Your task to perform on an android device: toggle data saver in the chrome app Image 0: 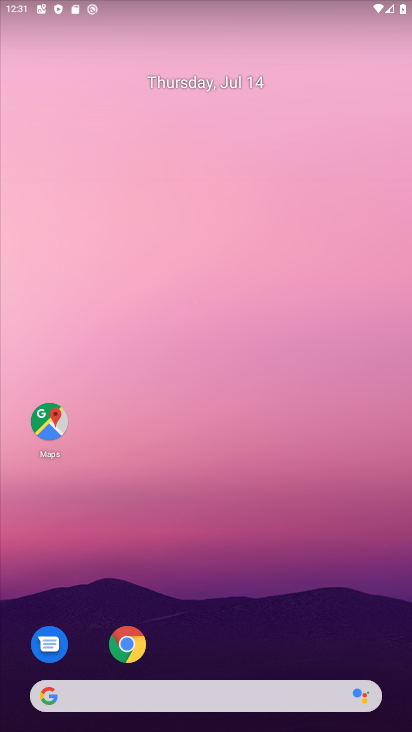
Step 0: drag from (232, 708) to (266, 75)
Your task to perform on an android device: toggle data saver in the chrome app Image 1: 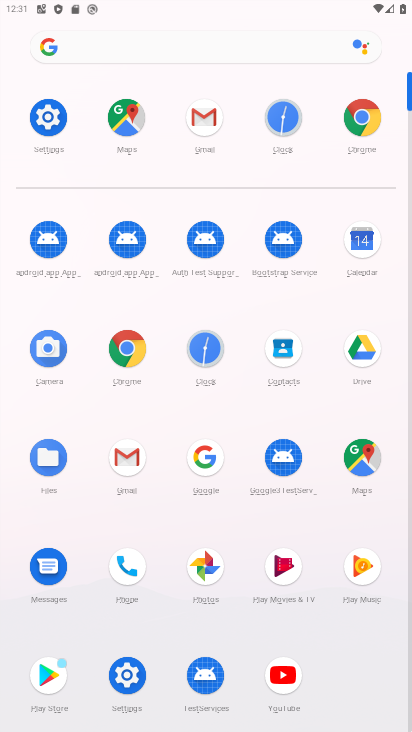
Step 1: click (125, 349)
Your task to perform on an android device: toggle data saver in the chrome app Image 2: 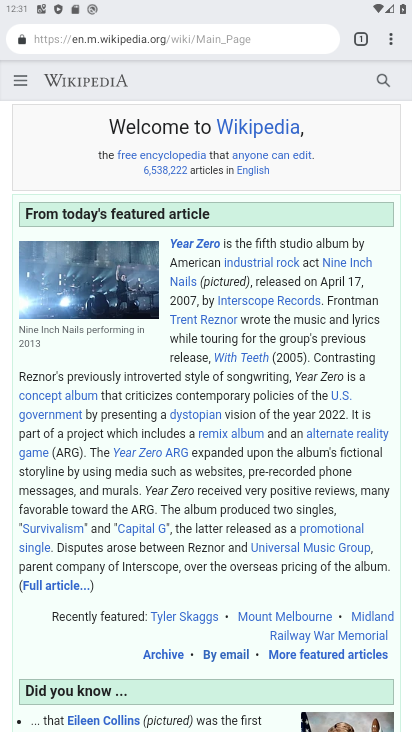
Step 2: click (378, 40)
Your task to perform on an android device: toggle data saver in the chrome app Image 3: 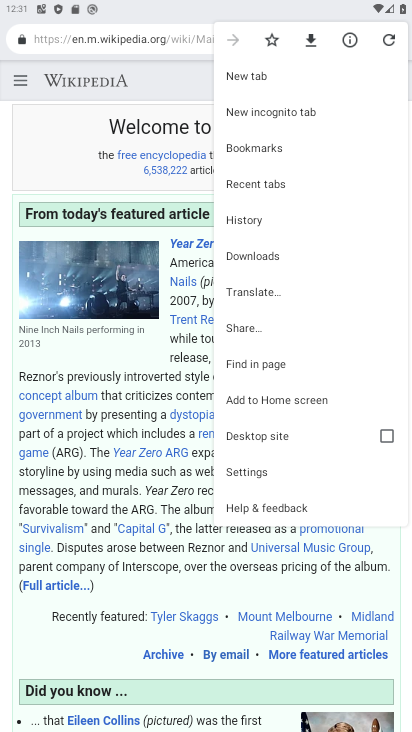
Step 3: click (273, 467)
Your task to perform on an android device: toggle data saver in the chrome app Image 4: 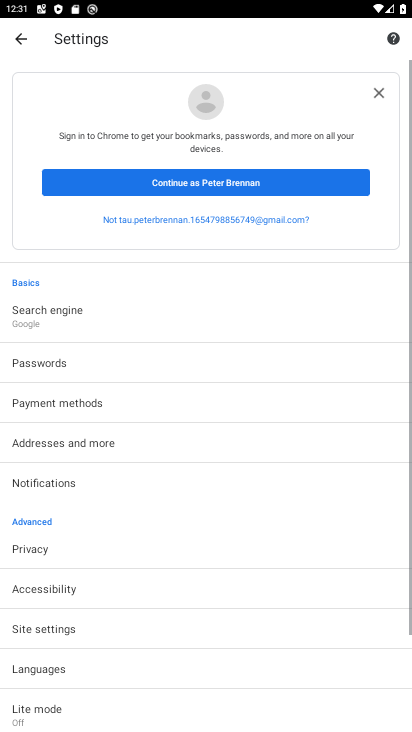
Step 4: drag from (264, 606) to (309, 346)
Your task to perform on an android device: toggle data saver in the chrome app Image 5: 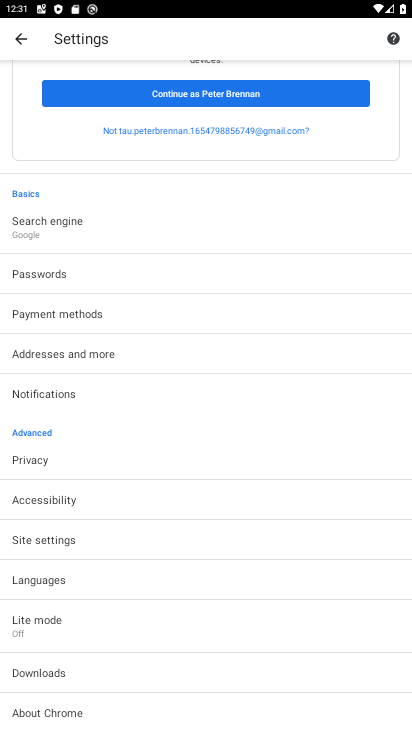
Step 5: click (73, 617)
Your task to perform on an android device: toggle data saver in the chrome app Image 6: 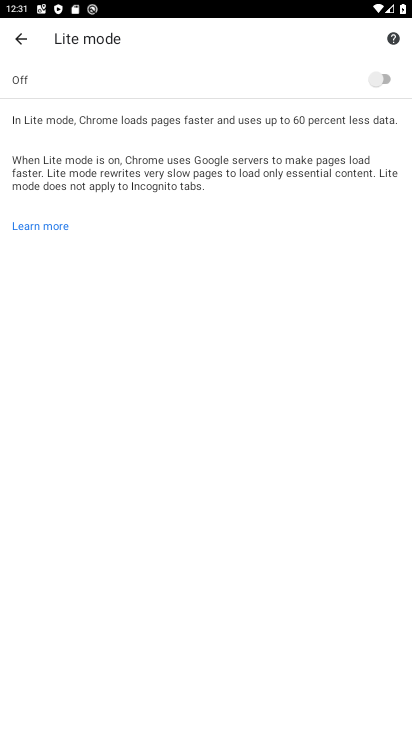
Step 6: click (388, 78)
Your task to perform on an android device: toggle data saver in the chrome app Image 7: 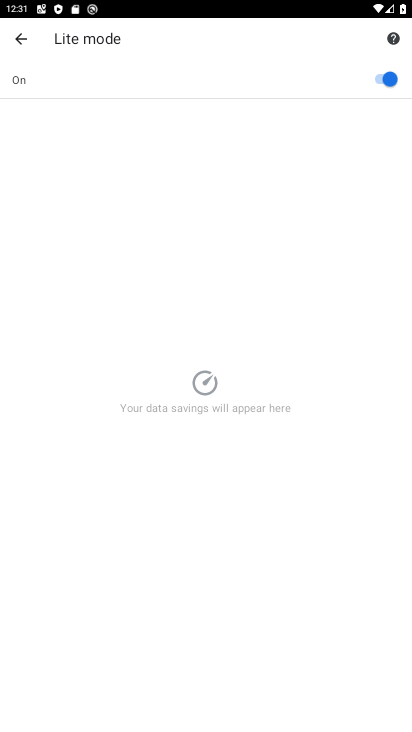
Step 7: task complete